Your task to perform on an android device: Open the calendar app, open the side menu, and click the "Day" option Image 0: 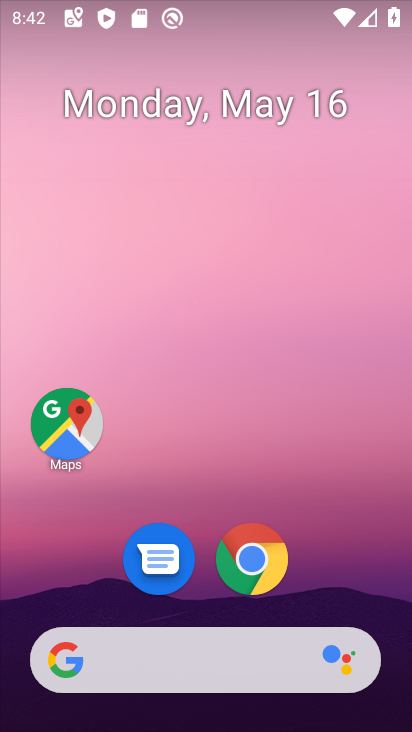
Step 0: drag from (316, 594) to (276, 60)
Your task to perform on an android device: Open the calendar app, open the side menu, and click the "Day" option Image 1: 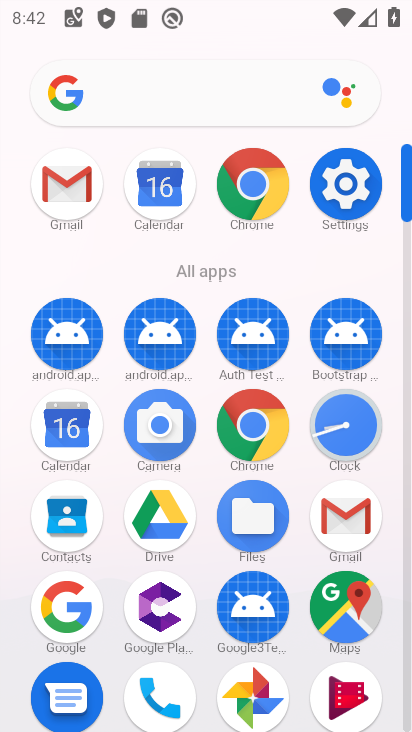
Step 1: click (157, 179)
Your task to perform on an android device: Open the calendar app, open the side menu, and click the "Day" option Image 2: 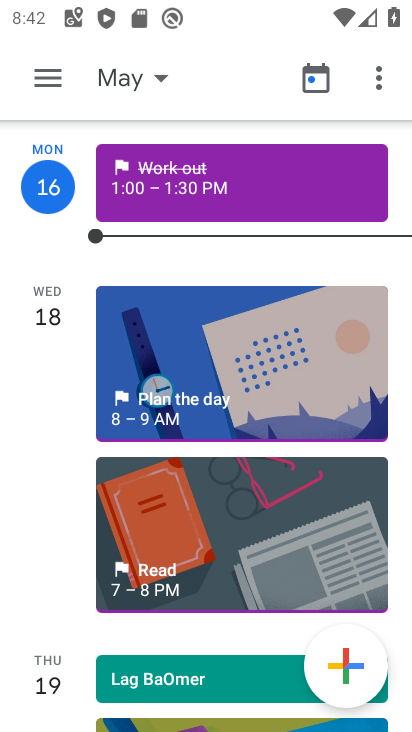
Step 2: click (66, 71)
Your task to perform on an android device: Open the calendar app, open the side menu, and click the "Day" option Image 3: 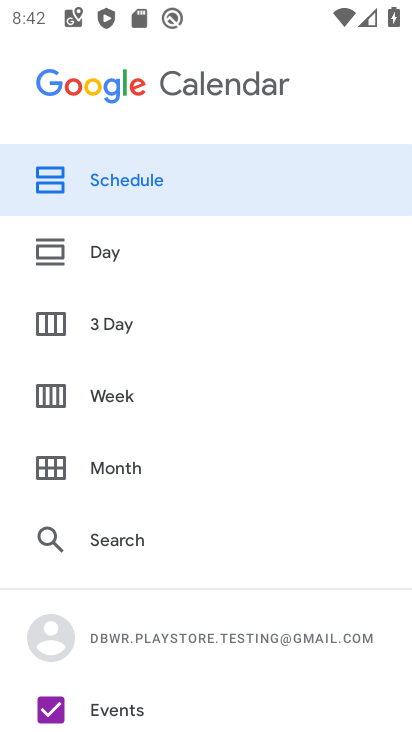
Step 3: click (118, 264)
Your task to perform on an android device: Open the calendar app, open the side menu, and click the "Day" option Image 4: 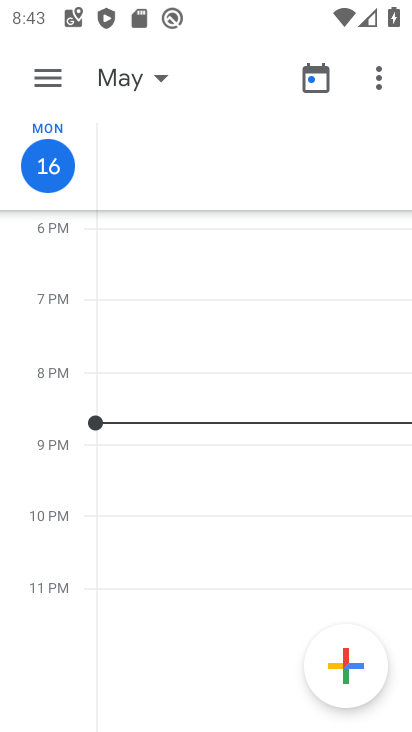
Step 4: task complete